Your task to perform on an android device: Set the phone to "Do not disturb". Image 0: 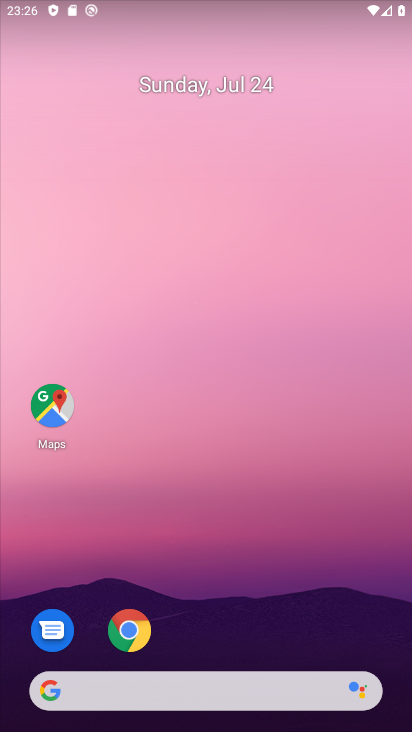
Step 0: click (214, 196)
Your task to perform on an android device: Set the phone to "Do not disturb". Image 1: 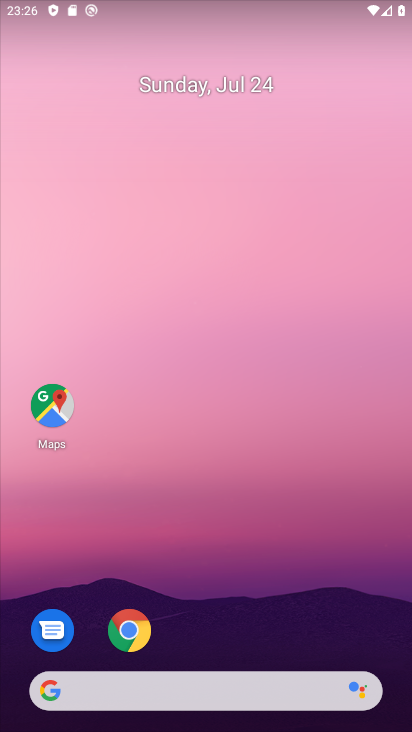
Step 1: drag from (245, 607) to (217, 18)
Your task to perform on an android device: Set the phone to "Do not disturb". Image 2: 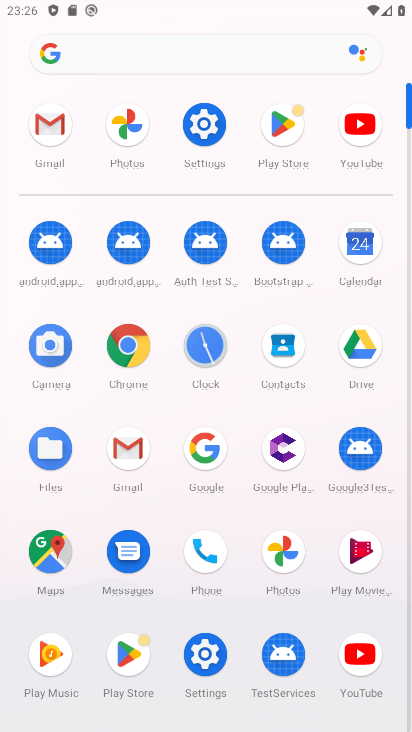
Step 2: click (200, 139)
Your task to perform on an android device: Set the phone to "Do not disturb". Image 3: 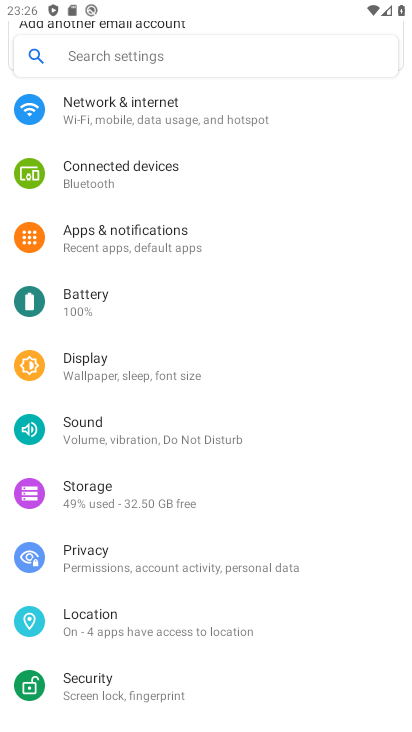
Step 3: click (135, 434)
Your task to perform on an android device: Set the phone to "Do not disturb". Image 4: 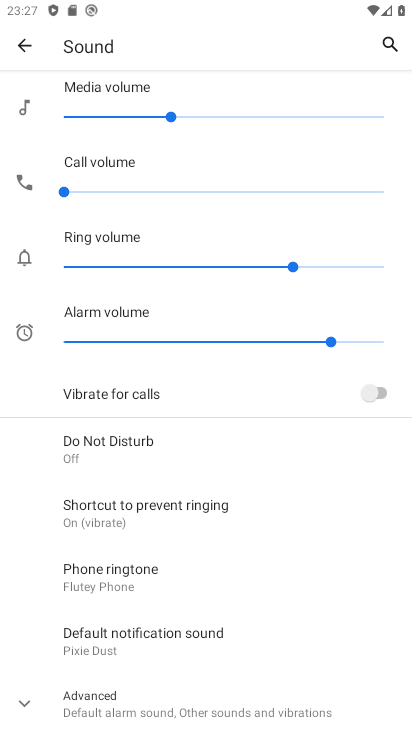
Step 4: click (94, 452)
Your task to perform on an android device: Set the phone to "Do not disturb". Image 5: 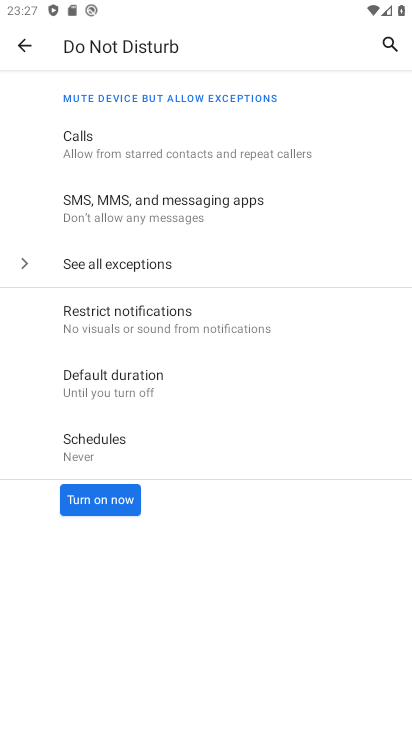
Step 5: click (95, 505)
Your task to perform on an android device: Set the phone to "Do not disturb". Image 6: 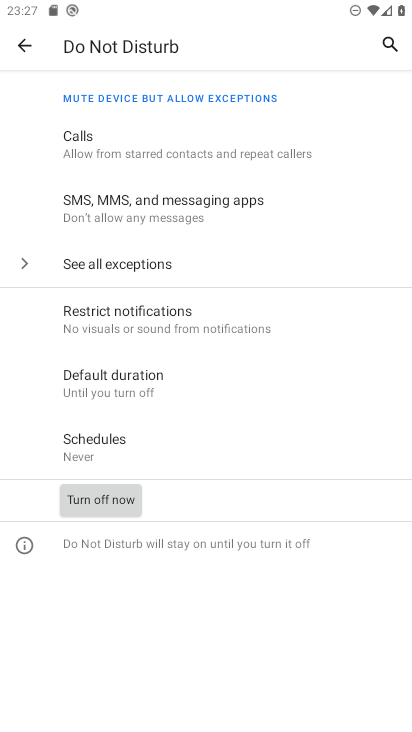
Step 6: task complete